Your task to perform on an android device: turn notification dots on Image 0: 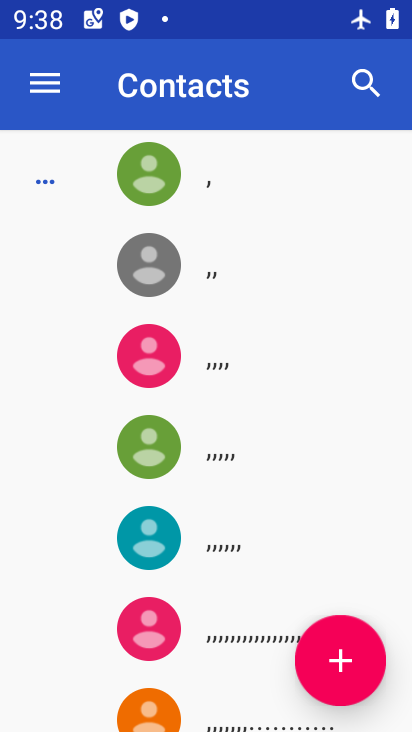
Step 0: press home button
Your task to perform on an android device: turn notification dots on Image 1: 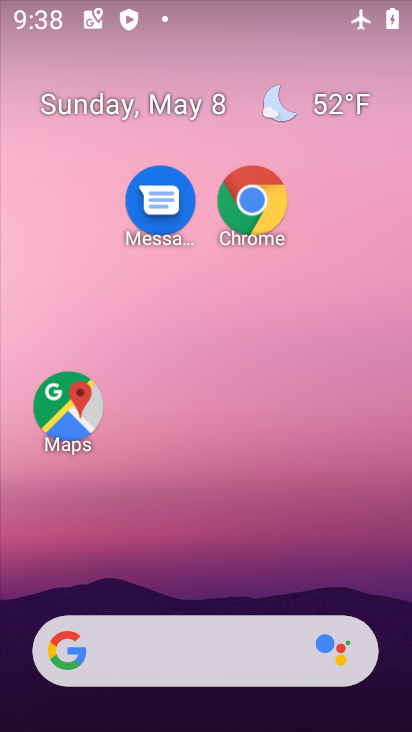
Step 1: drag from (186, 614) to (289, 14)
Your task to perform on an android device: turn notification dots on Image 2: 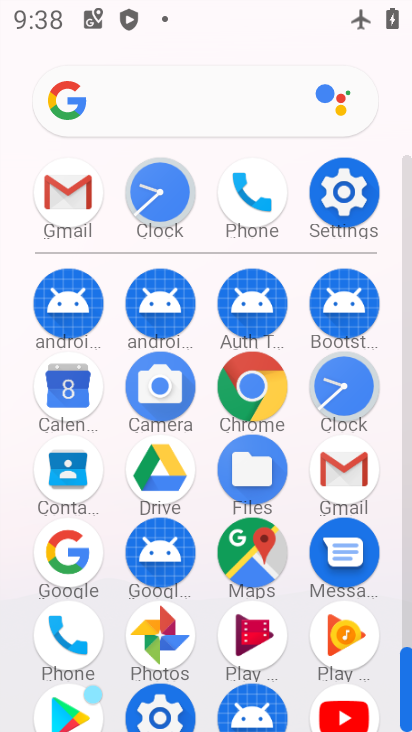
Step 2: click (346, 184)
Your task to perform on an android device: turn notification dots on Image 3: 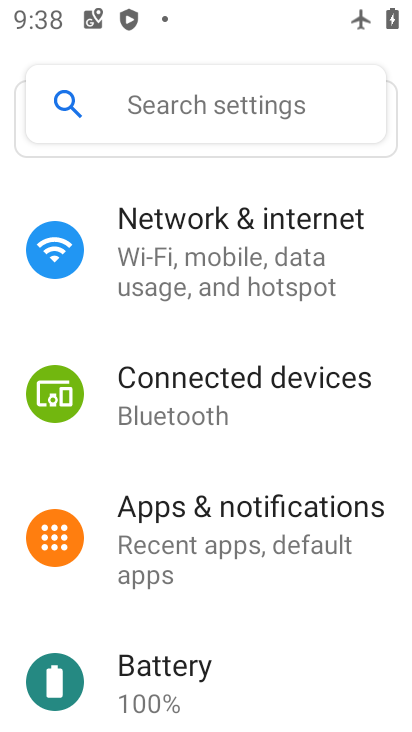
Step 3: click (292, 480)
Your task to perform on an android device: turn notification dots on Image 4: 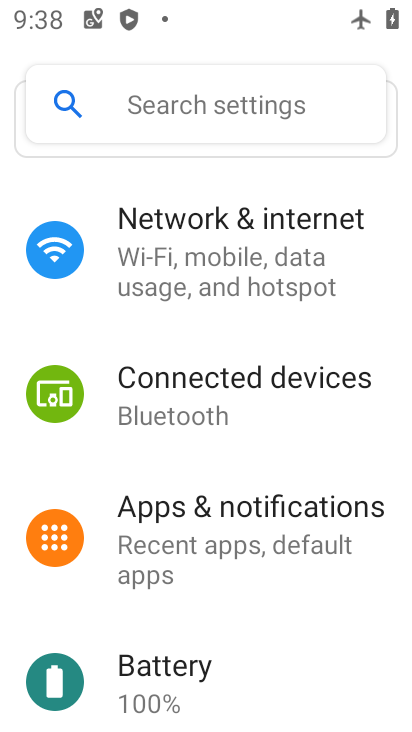
Step 4: drag from (305, 627) to (238, 257)
Your task to perform on an android device: turn notification dots on Image 5: 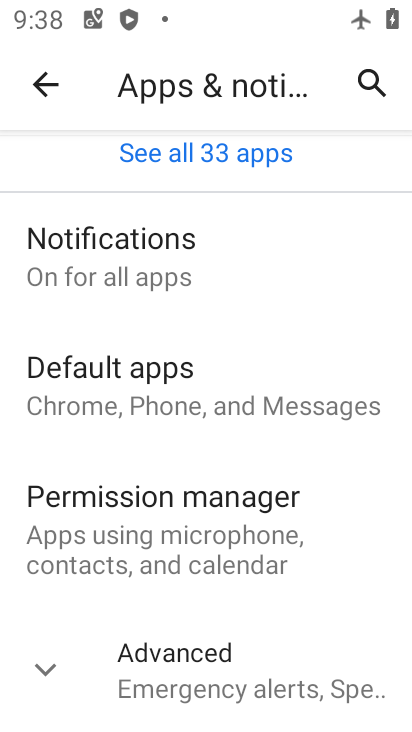
Step 5: click (143, 271)
Your task to perform on an android device: turn notification dots on Image 6: 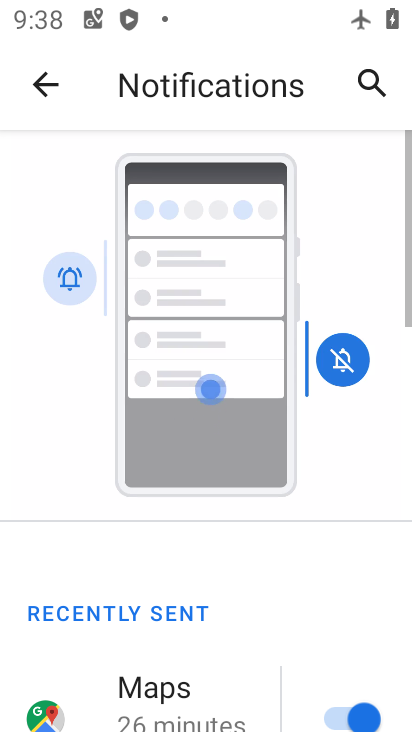
Step 6: drag from (207, 464) to (158, 25)
Your task to perform on an android device: turn notification dots on Image 7: 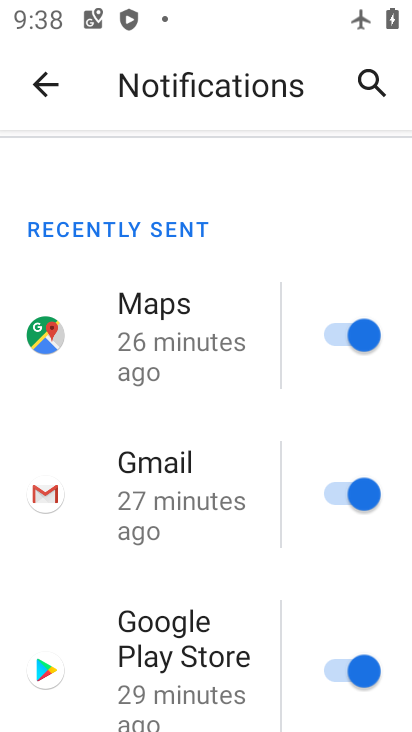
Step 7: drag from (265, 699) to (207, 2)
Your task to perform on an android device: turn notification dots on Image 8: 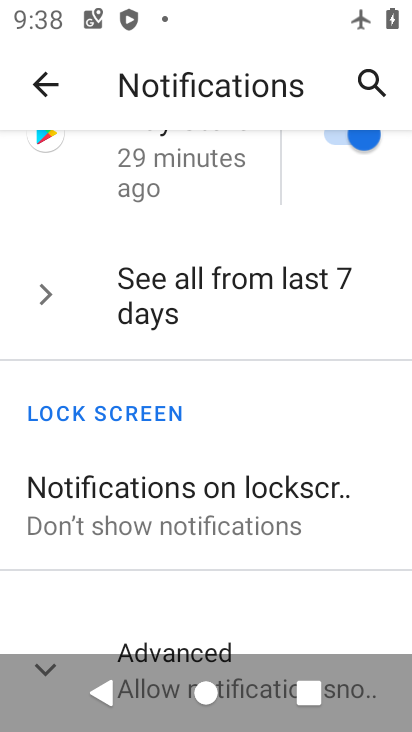
Step 8: click (244, 510)
Your task to perform on an android device: turn notification dots on Image 9: 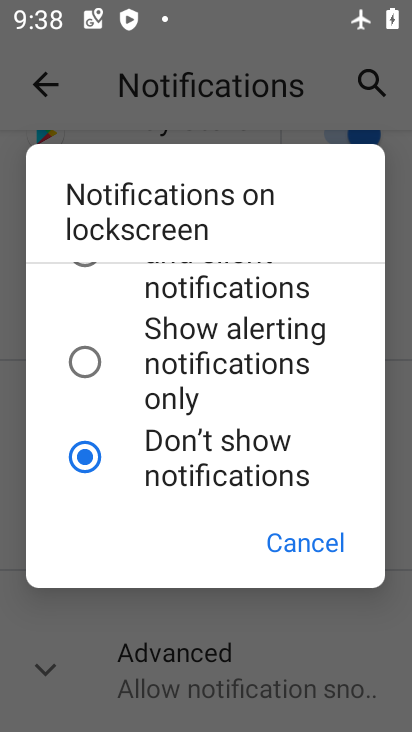
Step 9: click (248, 668)
Your task to perform on an android device: turn notification dots on Image 10: 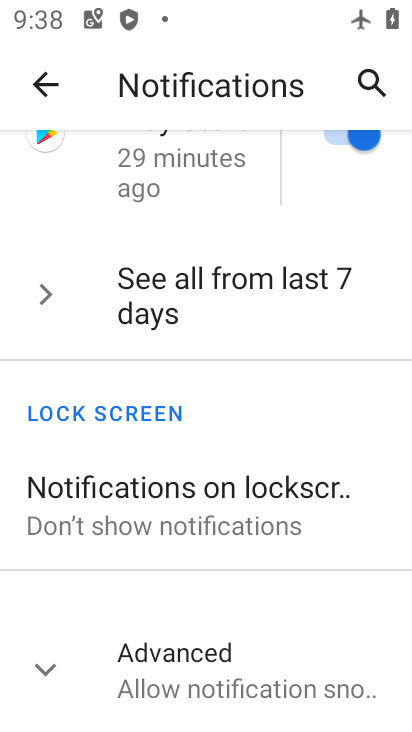
Step 10: click (248, 668)
Your task to perform on an android device: turn notification dots on Image 11: 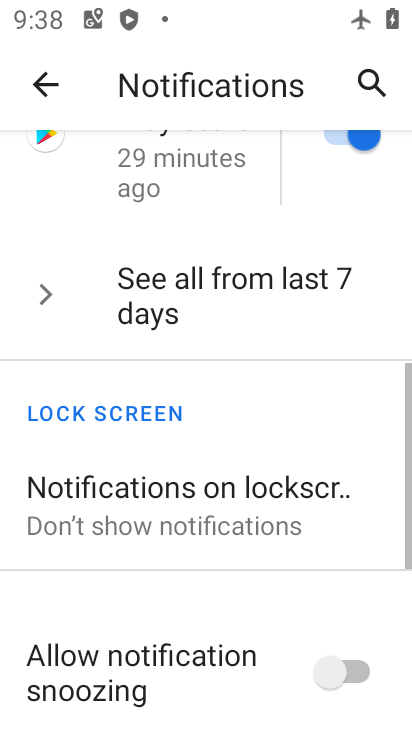
Step 11: task complete